Your task to perform on an android device: check google app version Image 0: 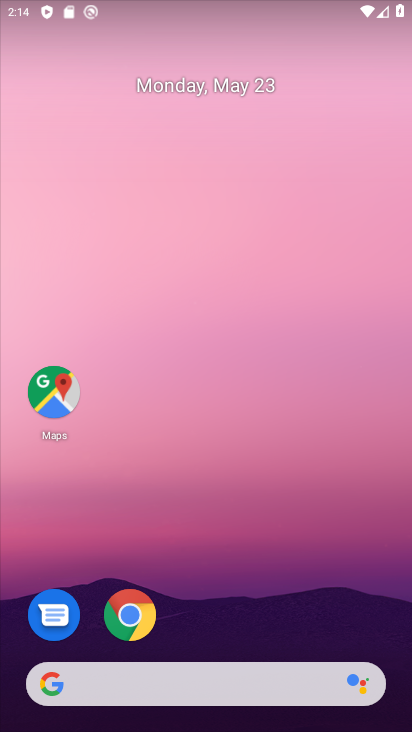
Step 0: drag from (262, 646) to (273, 40)
Your task to perform on an android device: check google app version Image 1: 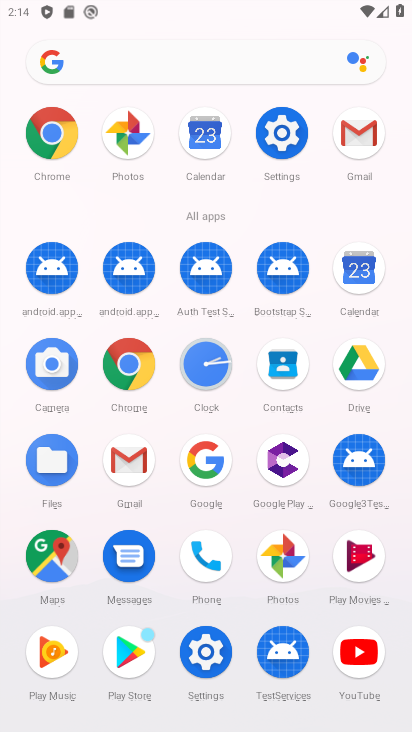
Step 1: click (205, 467)
Your task to perform on an android device: check google app version Image 2: 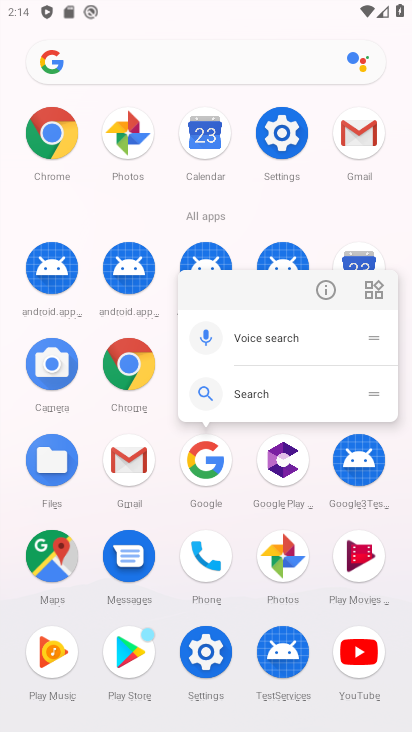
Step 2: click (319, 289)
Your task to perform on an android device: check google app version Image 3: 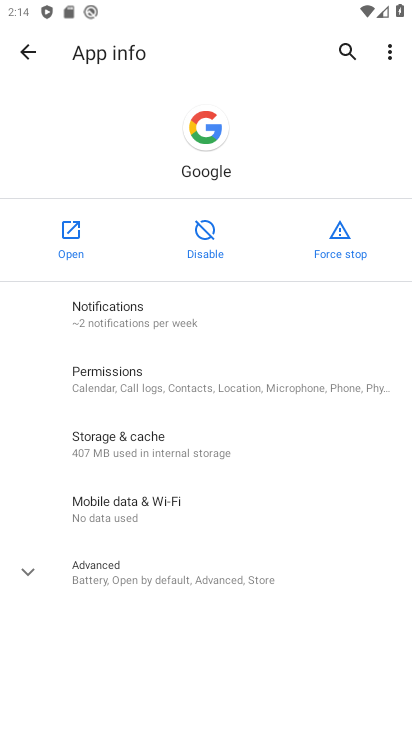
Step 3: click (23, 577)
Your task to perform on an android device: check google app version Image 4: 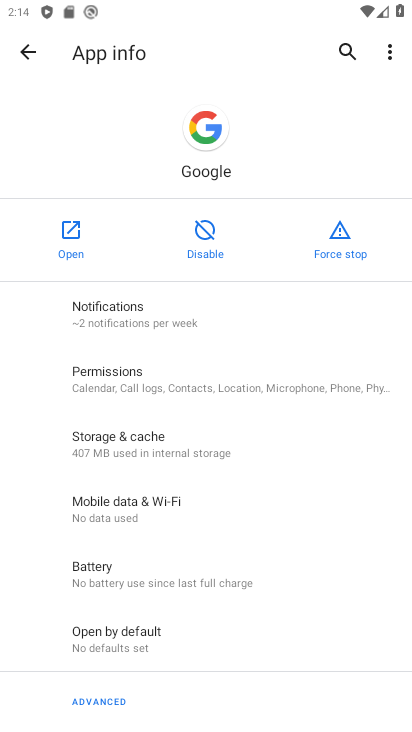
Step 4: task complete